Your task to perform on an android device: read, delete, or share a saved page in the chrome app Image 0: 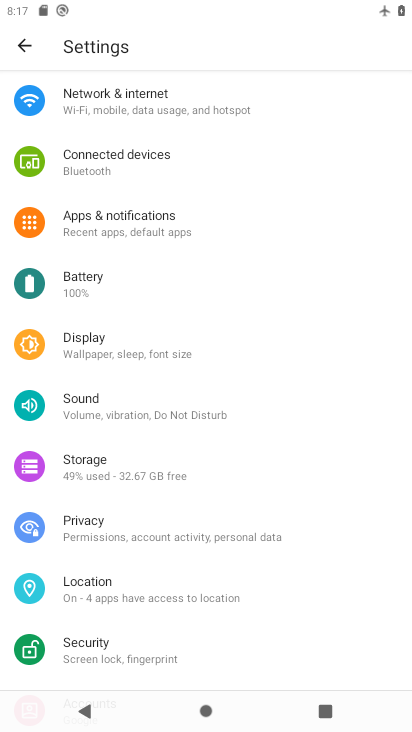
Step 0: press home button
Your task to perform on an android device: read, delete, or share a saved page in the chrome app Image 1: 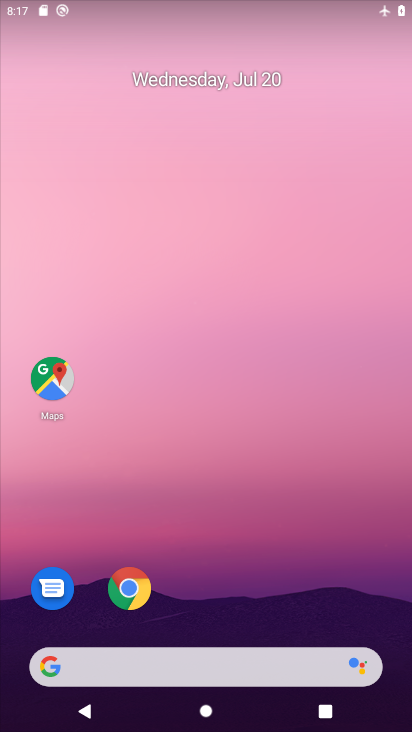
Step 1: click (117, 584)
Your task to perform on an android device: read, delete, or share a saved page in the chrome app Image 2: 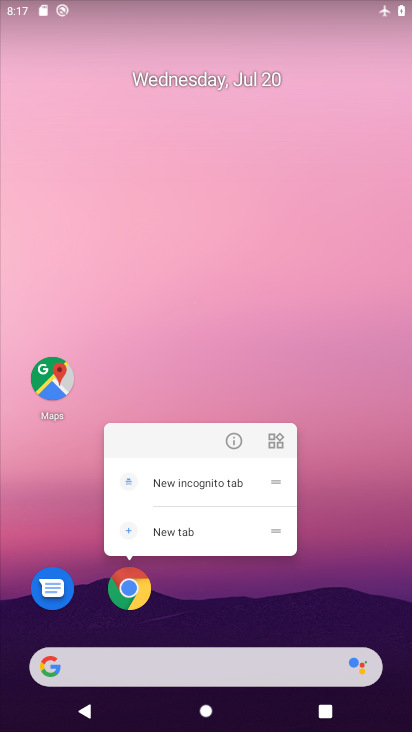
Step 2: click (125, 579)
Your task to perform on an android device: read, delete, or share a saved page in the chrome app Image 3: 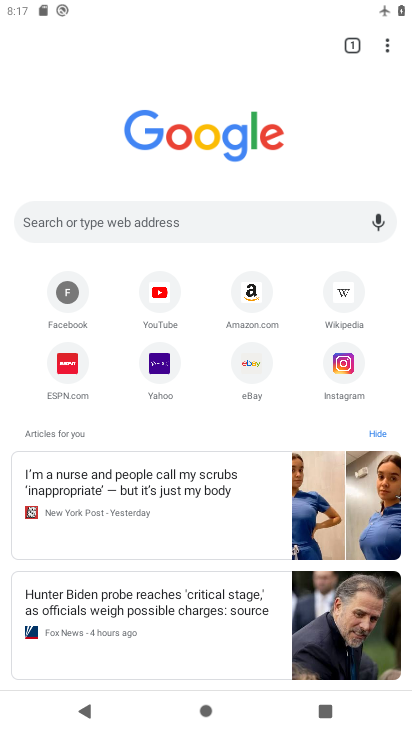
Step 3: click (387, 41)
Your task to perform on an android device: read, delete, or share a saved page in the chrome app Image 4: 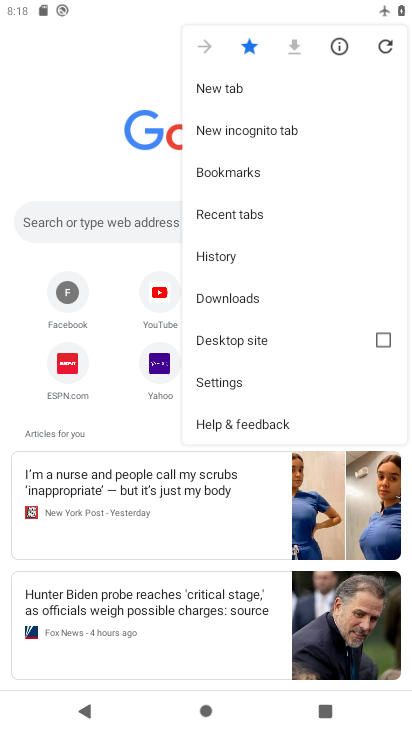
Step 4: click (274, 295)
Your task to perform on an android device: read, delete, or share a saved page in the chrome app Image 5: 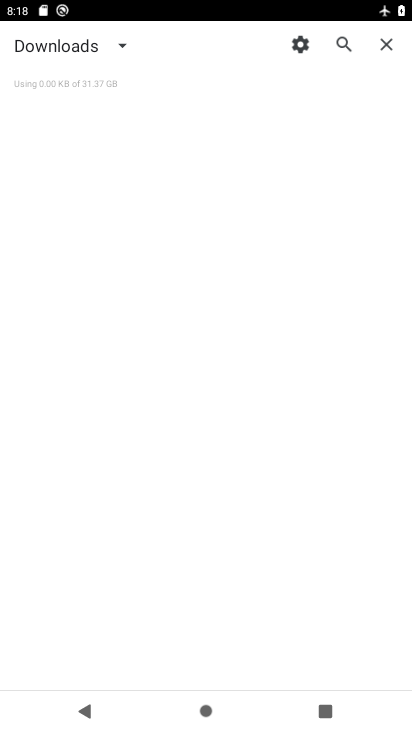
Step 5: task complete